Your task to perform on an android device: Open internet settings Image 0: 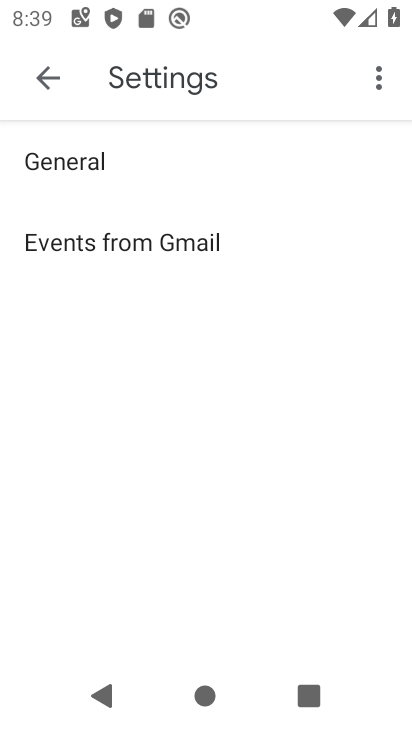
Step 0: press home button
Your task to perform on an android device: Open internet settings Image 1: 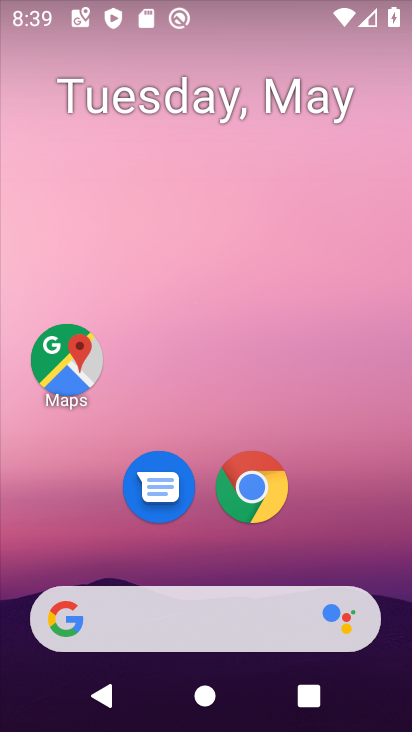
Step 1: drag from (186, 618) to (340, 152)
Your task to perform on an android device: Open internet settings Image 2: 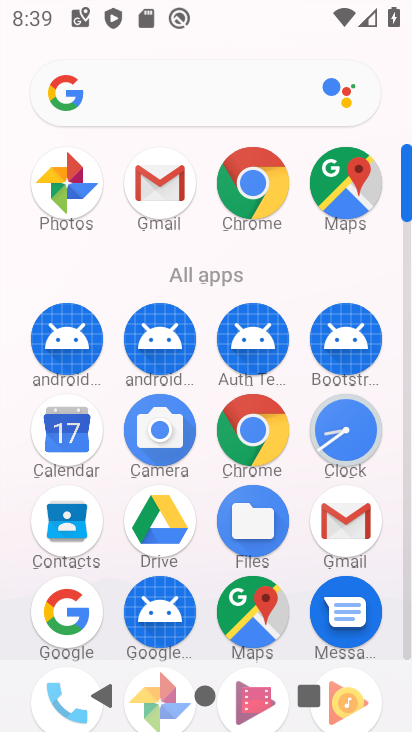
Step 2: drag from (198, 573) to (338, 137)
Your task to perform on an android device: Open internet settings Image 3: 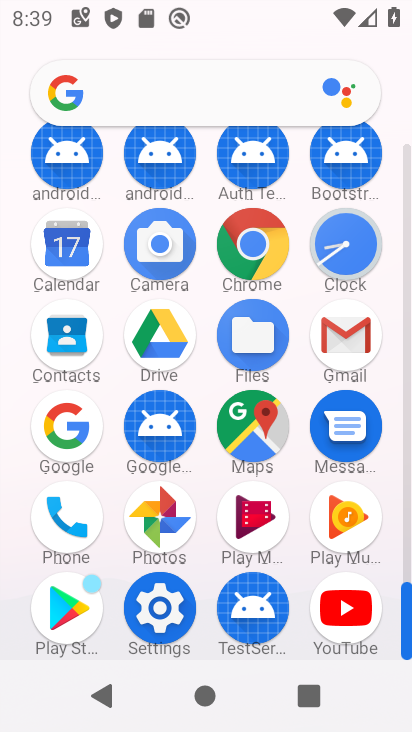
Step 3: click (155, 600)
Your task to perform on an android device: Open internet settings Image 4: 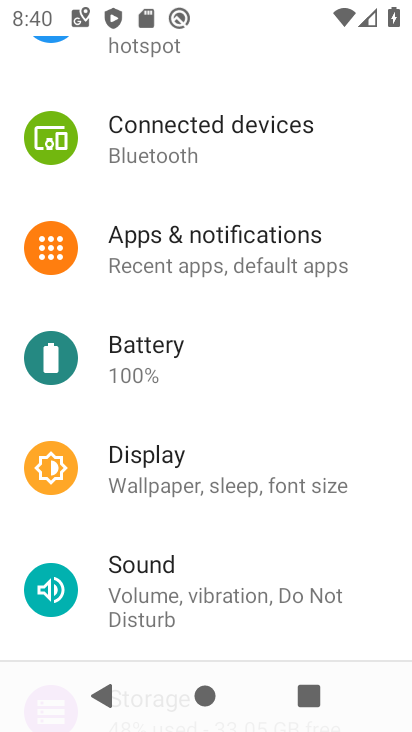
Step 4: drag from (352, 94) to (283, 492)
Your task to perform on an android device: Open internet settings Image 5: 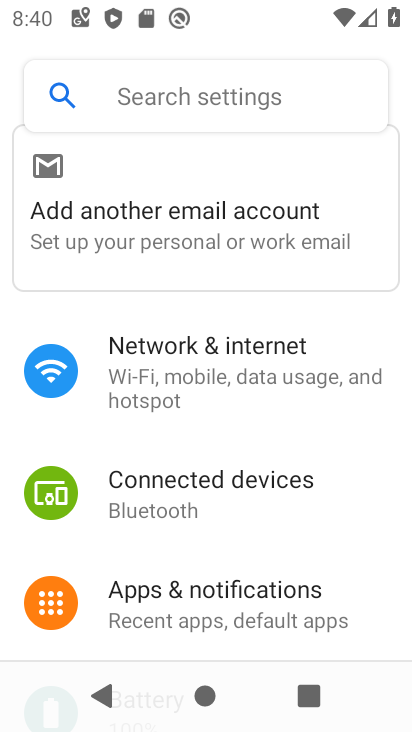
Step 5: click (268, 370)
Your task to perform on an android device: Open internet settings Image 6: 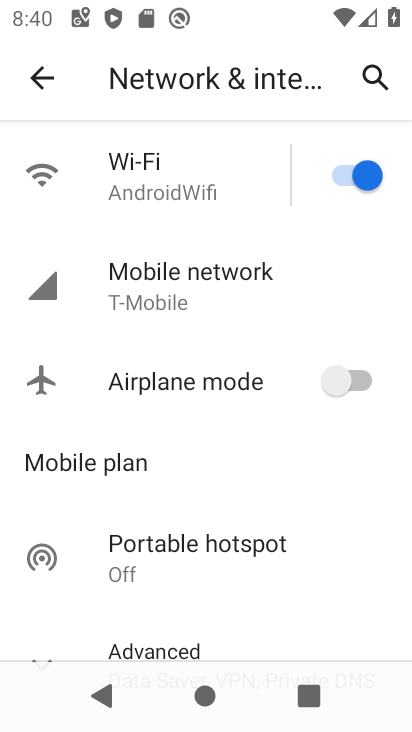
Step 6: task complete